Your task to perform on an android device: Show me recent news Image 0: 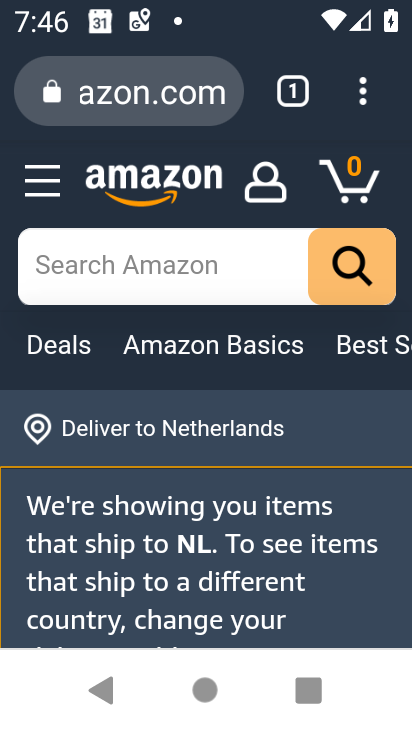
Step 0: press home button
Your task to perform on an android device: Show me recent news Image 1: 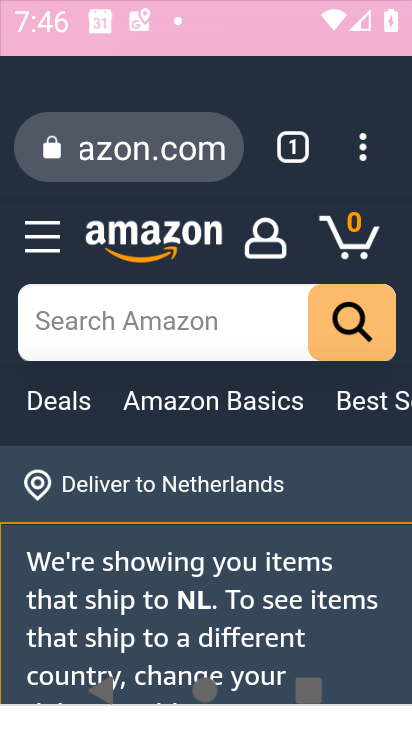
Step 1: drag from (394, 625) to (395, 384)
Your task to perform on an android device: Show me recent news Image 2: 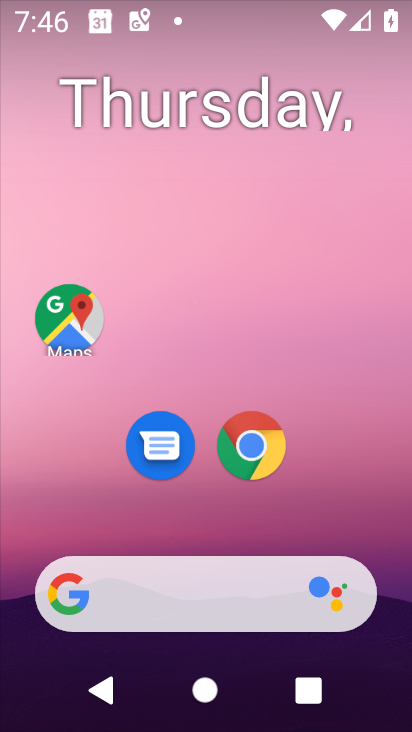
Step 2: drag from (198, 534) to (230, 0)
Your task to perform on an android device: Show me recent news Image 3: 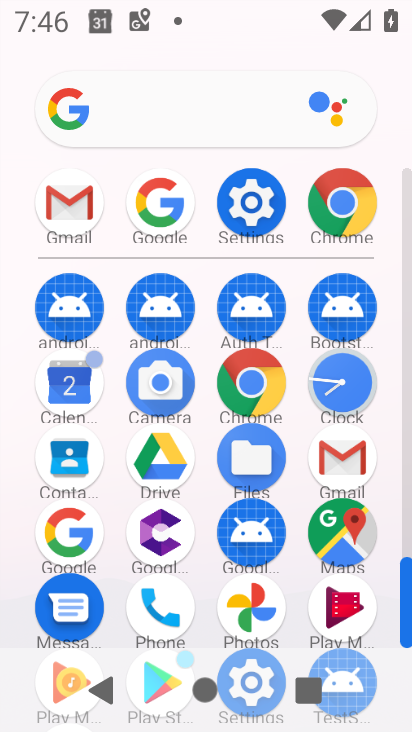
Step 3: click (178, 219)
Your task to perform on an android device: Show me recent news Image 4: 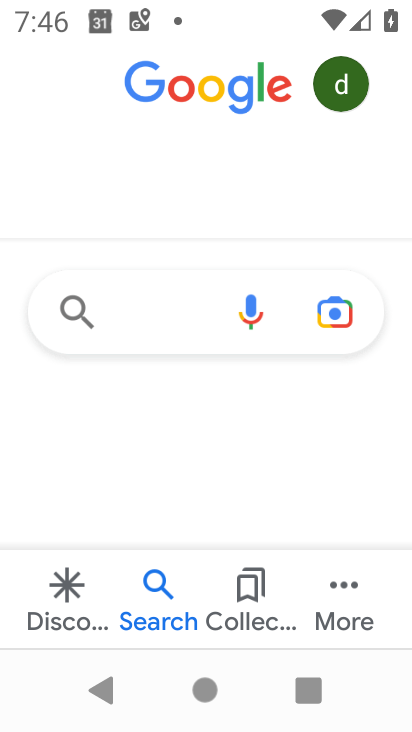
Step 4: click (146, 344)
Your task to perform on an android device: Show me recent news Image 5: 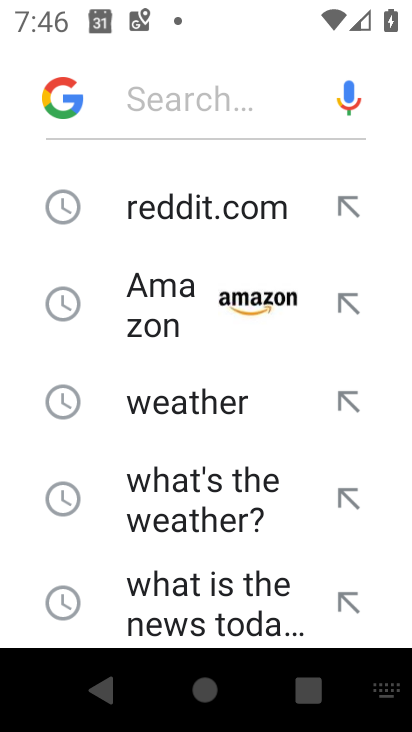
Step 5: type "recent news"
Your task to perform on an android device: Show me recent news Image 6: 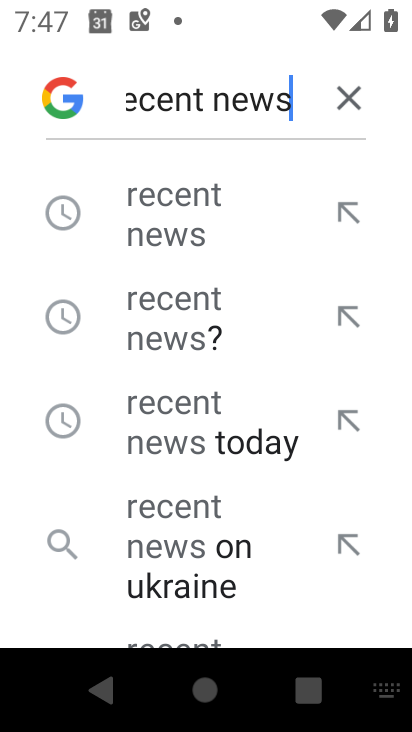
Step 6: click (205, 197)
Your task to perform on an android device: Show me recent news Image 7: 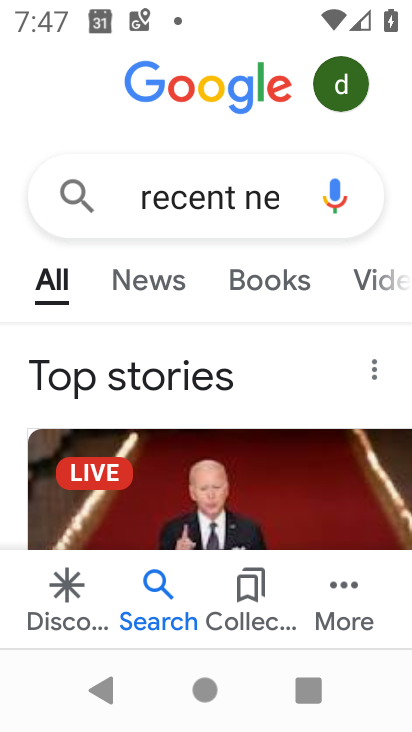
Step 7: task complete